Your task to perform on an android device: Empty the shopping cart on costco. Add "asus zenbook" to the cart on costco Image 0: 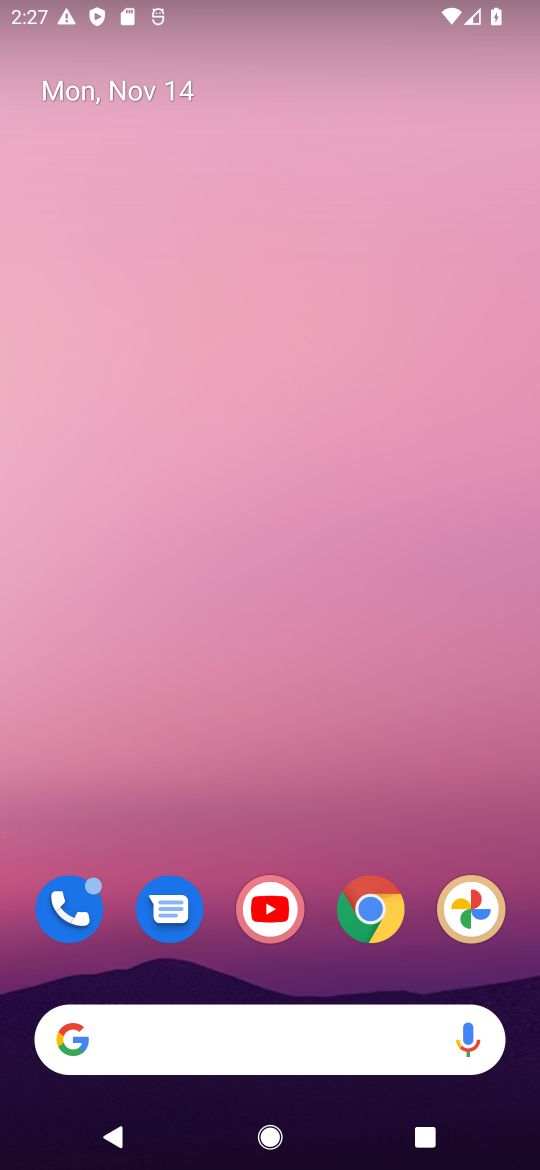
Step 0: drag from (281, 918) to (408, 107)
Your task to perform on an android device: Empty the shopping cart on costco. Add "asus zenbook" to the cart on costco Image 1: 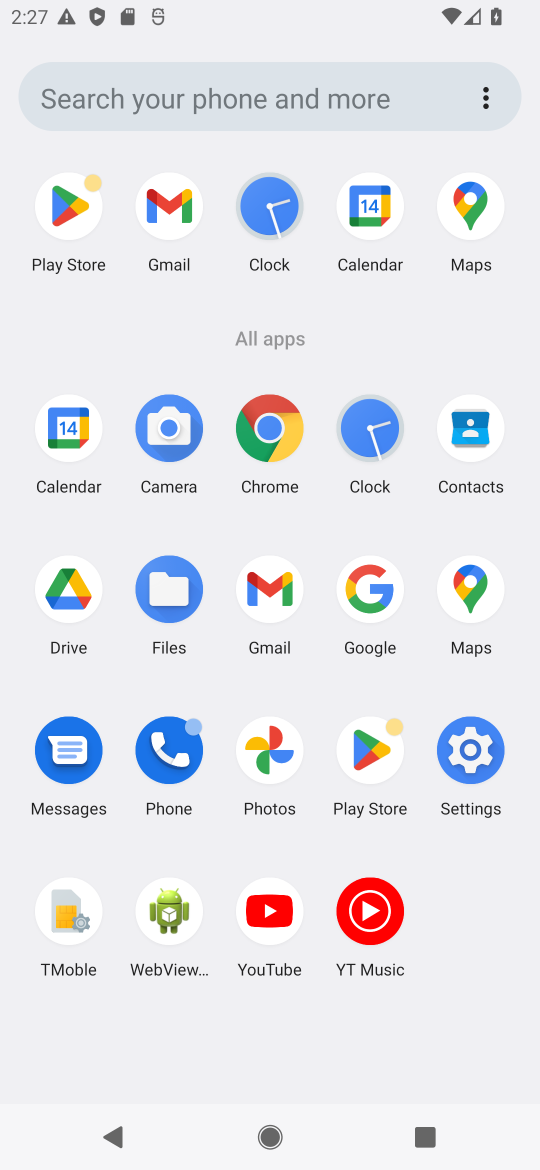
Step 1: click (260, 437)
Your task to perform on an android device: Empty the shopping cart on costco. Add "asus zenbook" to the cart on costco Image 2: 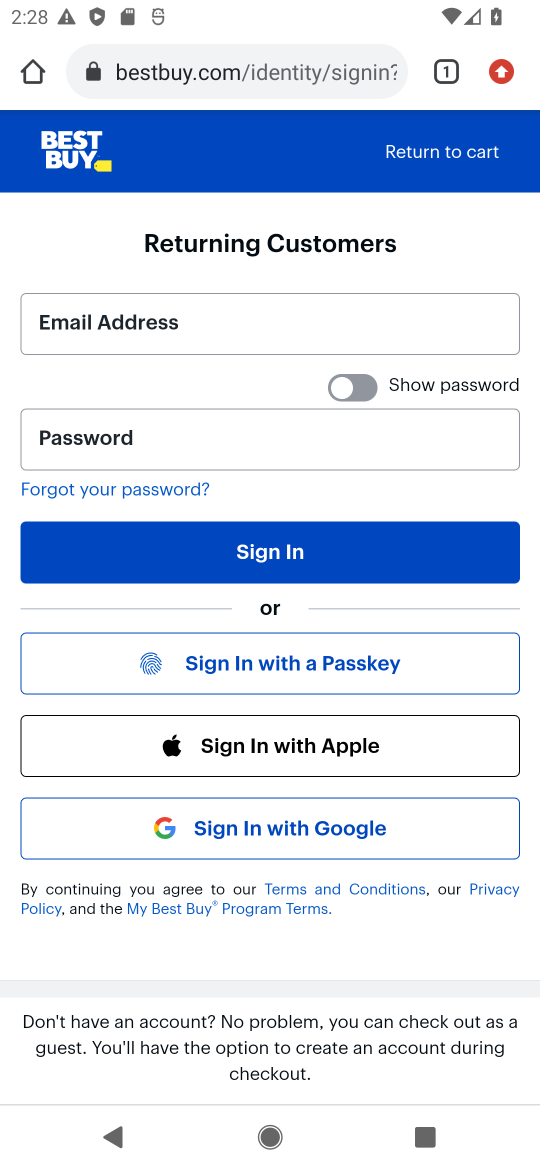
Step 2: click (265, 67)
Your task to perform on an android device: Empty the shopping cart on costco. Add "asus zenbook" to the cart on costco Image 3: 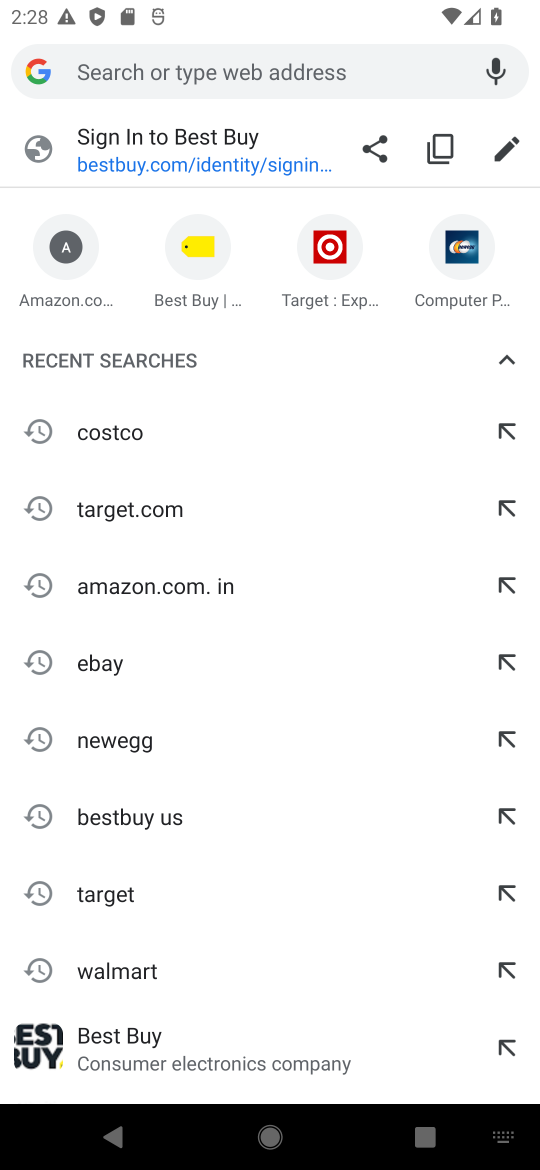
Step 3: type "costco.com"
Your task to perform on an android device: Empty the shopping cart on costco. Add "asus zenbook" to the cart on costco Image 4: 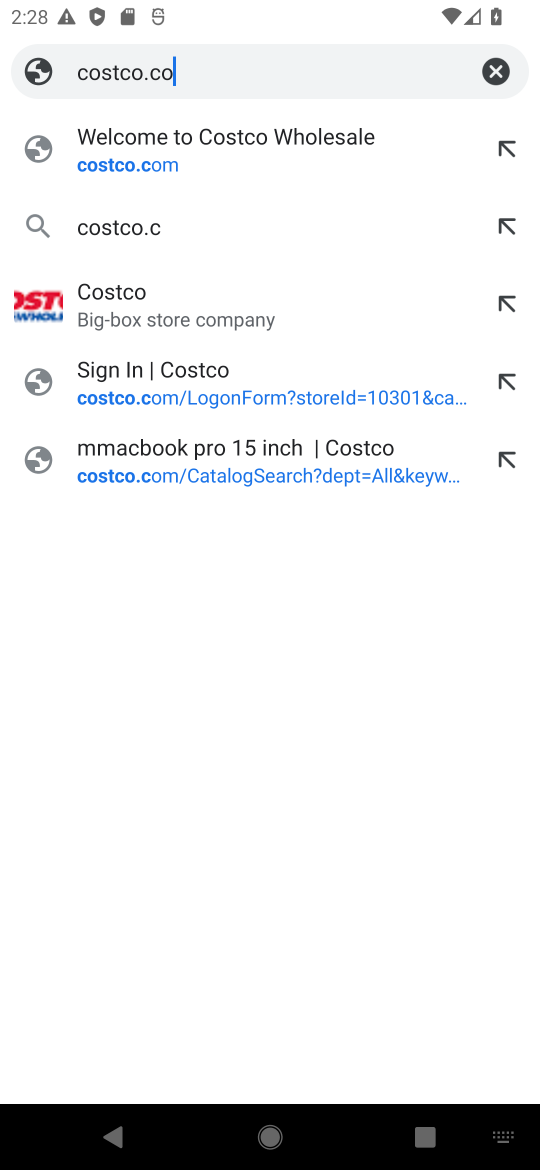
Step 4: press enter
Your task to perform on an android device: Empty the shopping cart on costco. Add "asus zenbook" to the cart on costco Image 5: 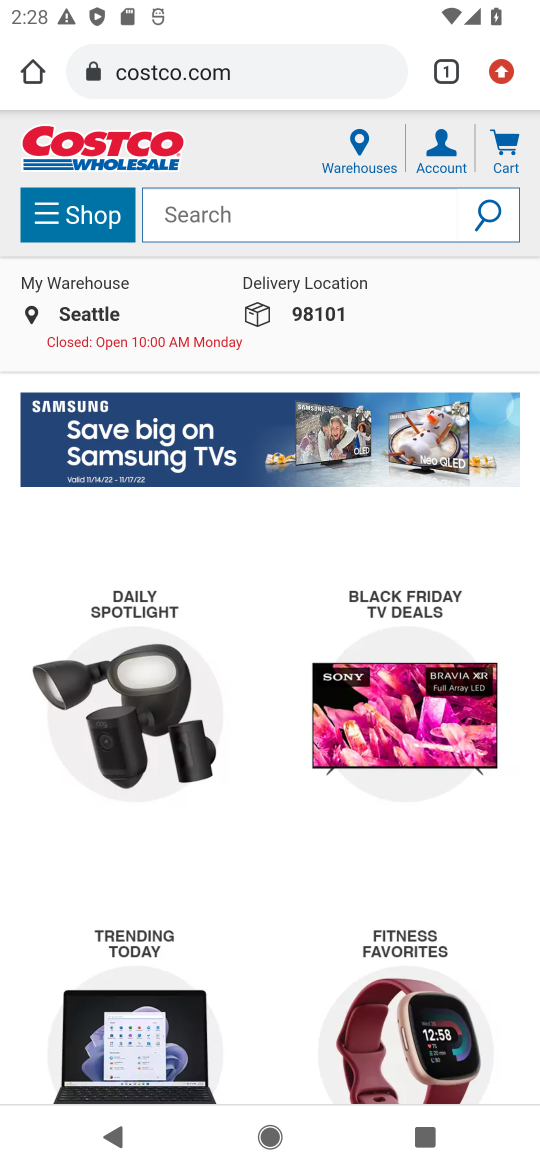
Step 5: click (500, 155)
Your task to perform on an android device: Empty the shopping cart on costco. Add "asus zenbook" to the cart on costco Image 6: 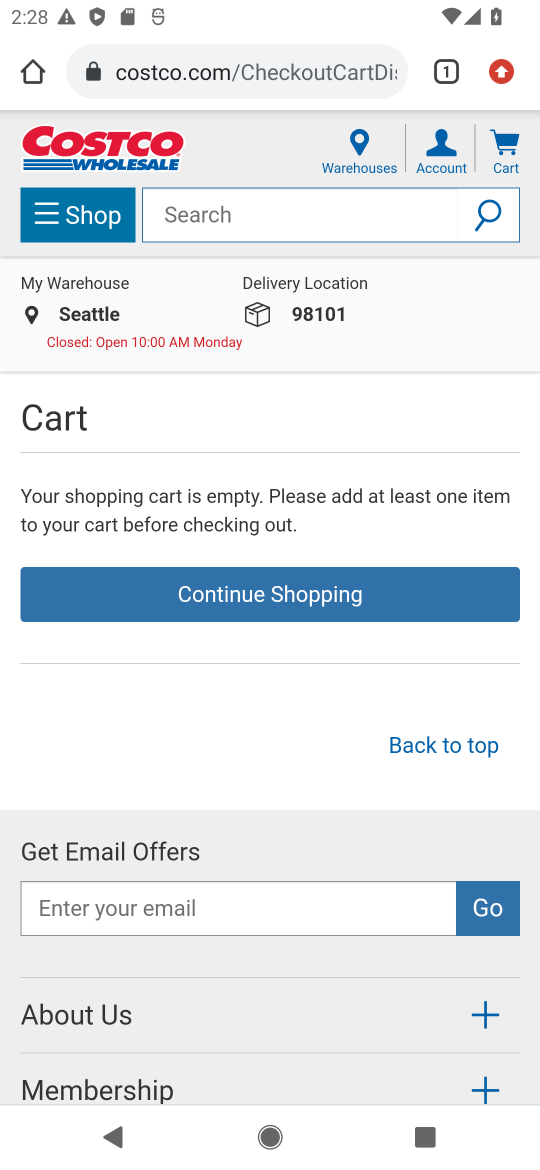
Step 6: click (288, 205)
Your task to perform on an android device: Empty the shopping cart on costco. Add "asus zenbook" to the cart on costco Image 7: 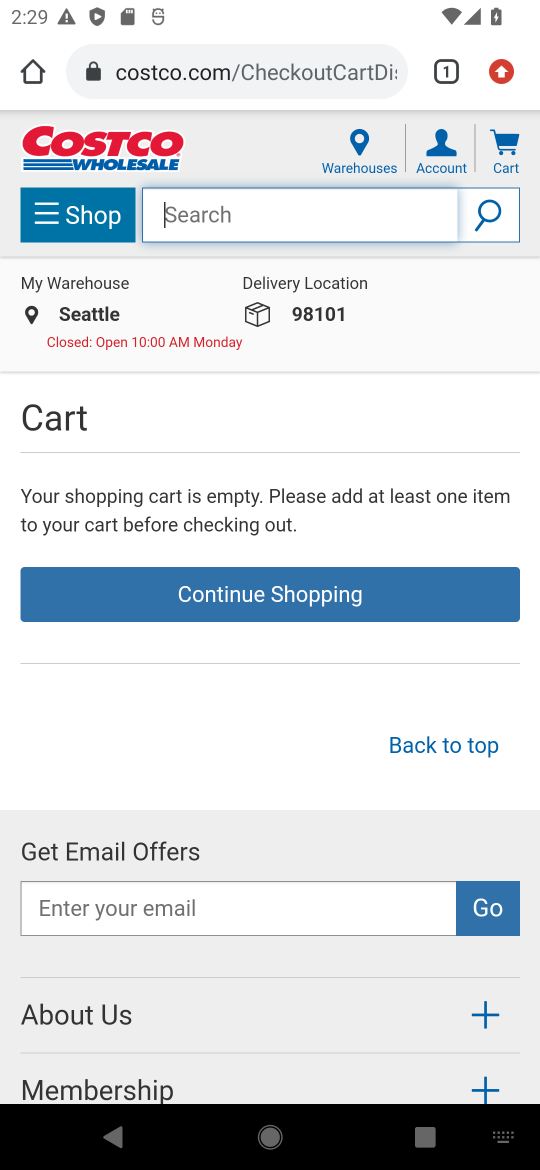
Step 7: type "asus zenbook"
Your task to perform on an android device: Empty the shopping cart on costco. Add "asus zenbook" to the cart on costco Image 8: 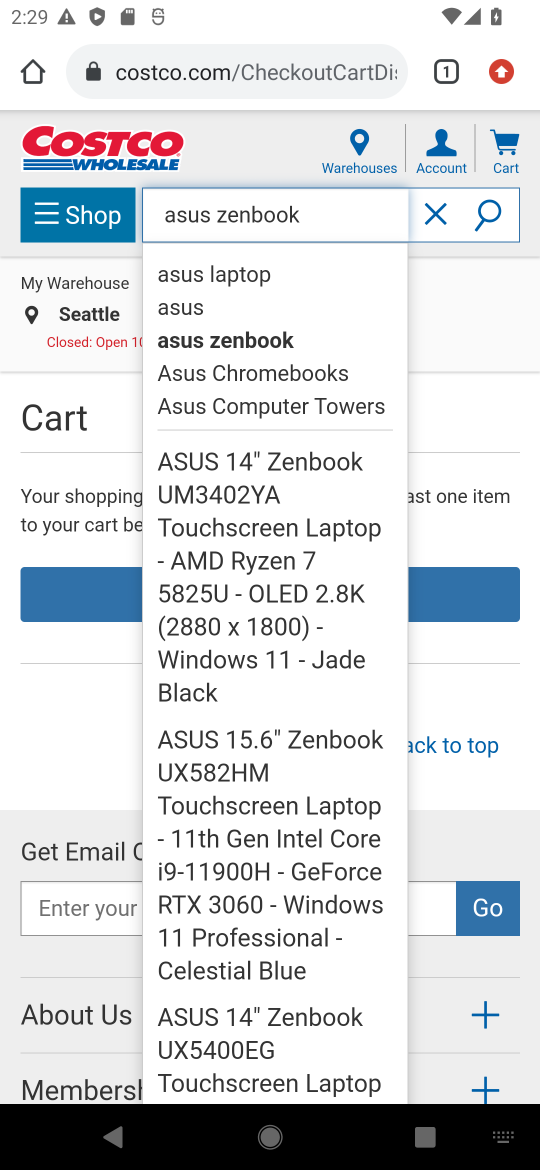
Step 8: press enter
Your task to perform on an android device: Empty the shopping cart on costco. Add "asus zenbook" to the cart on costco Image 9: 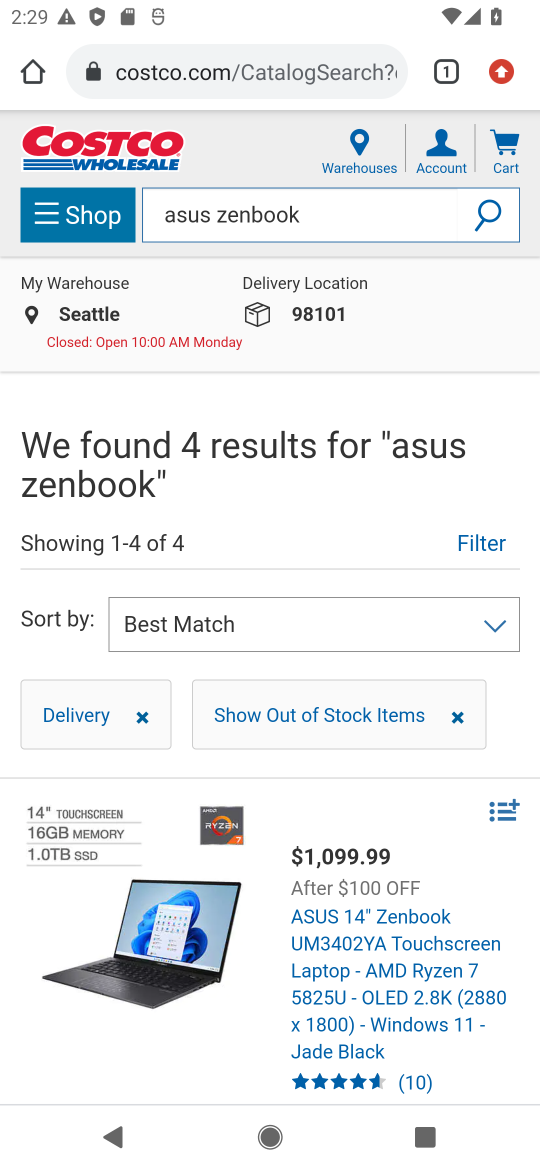
Step 9: drag from (344, 979) to (359, 590)
Your task to perform on an android device: Empty the shopping cart on costco. Add "asus zenbook" to the cart on costco Image 10: 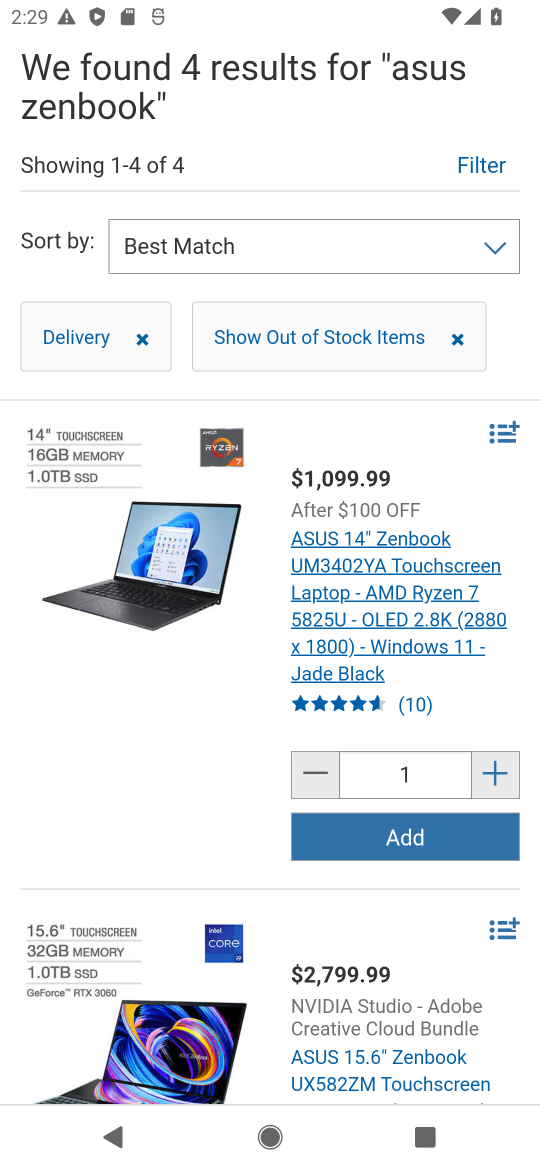
Step 10: click (426, 833)
Your task to perform on an android device: Empty the shopping cart on costco. Add "asus zenbook" to the cart on costco Image 11: 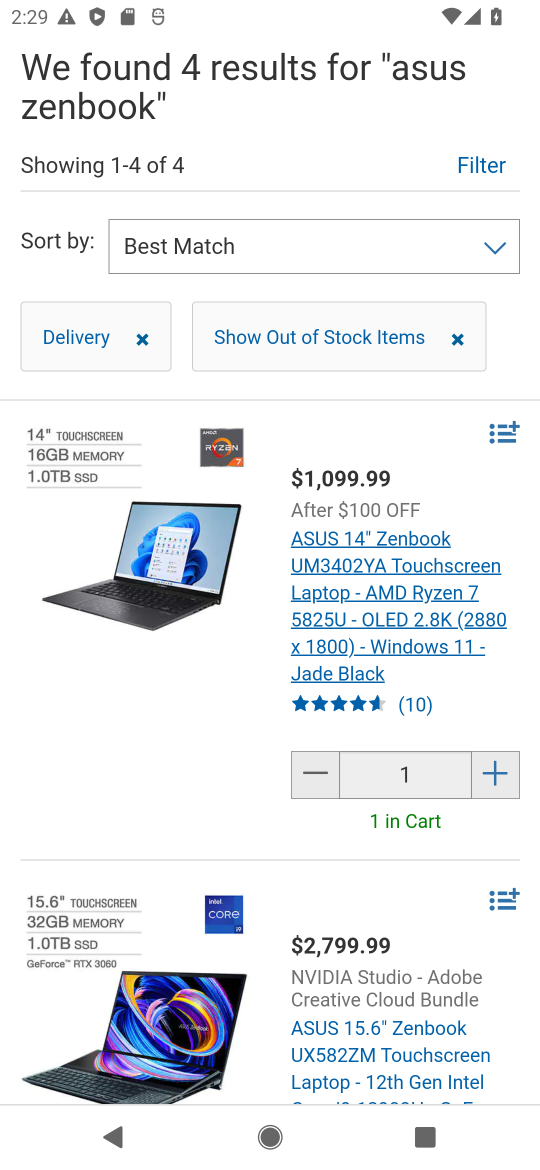
Step 11: task complete